Your task to perform on an android device: Go to Google Image 0: 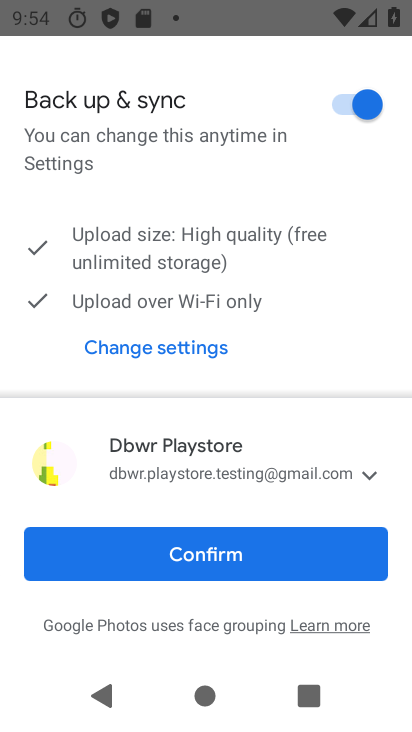
Step 0: press home button
Your task to perform on an android device: Go to Google Image 1: 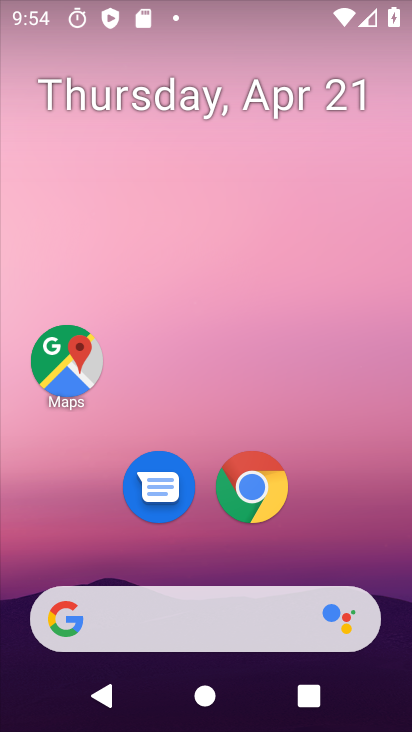
Step 1: click (359, 160)
Your task to perform on an android device: Go to Google Image 2: 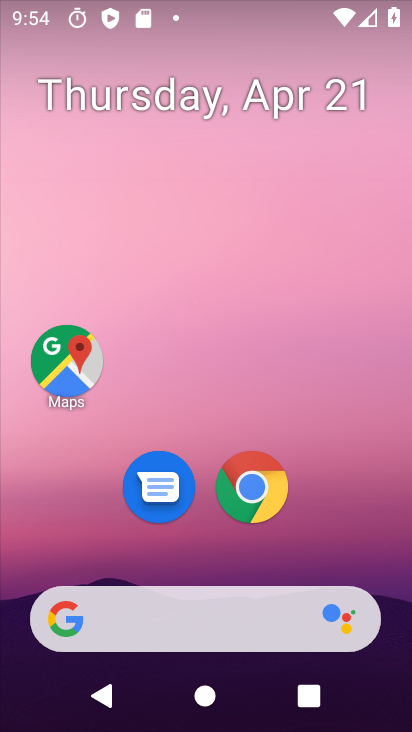
Step 2: drag from (388, 421) to (396, 304)
Your task to perform on an android device: Go to Google Image 3: 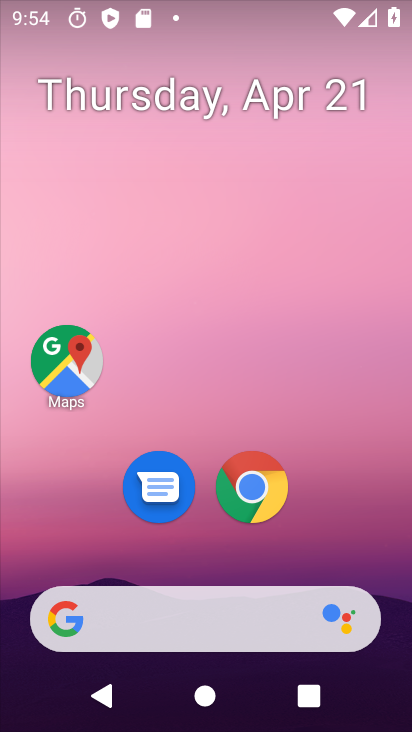
Step 3: drag from (381, 464) to (372, 240)
Your task to perform on an android device: Go to Google Image 4: 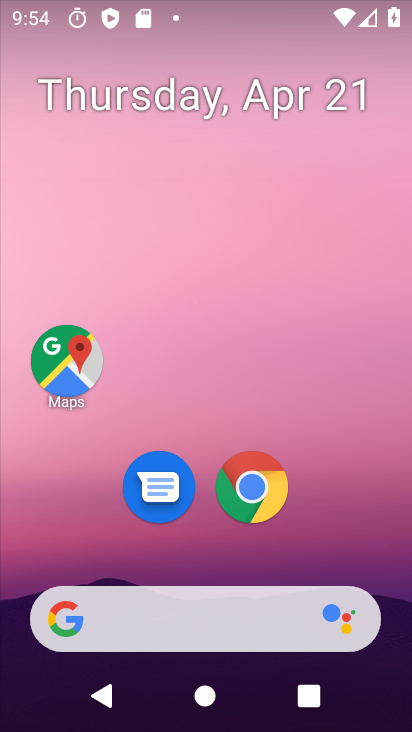
Step 4: click (377, 333)
Your task to perform on an android device: Go to Google Image 5: 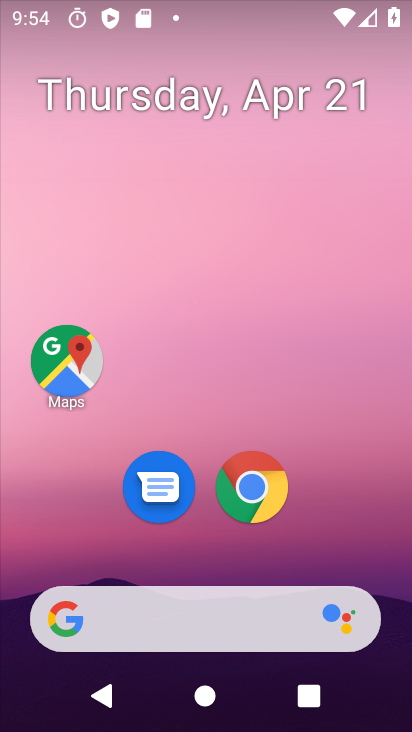
Step 5: drag from (401, 634) to (393, 251)
Your task to perform on an android device: Go to Google Image 6: 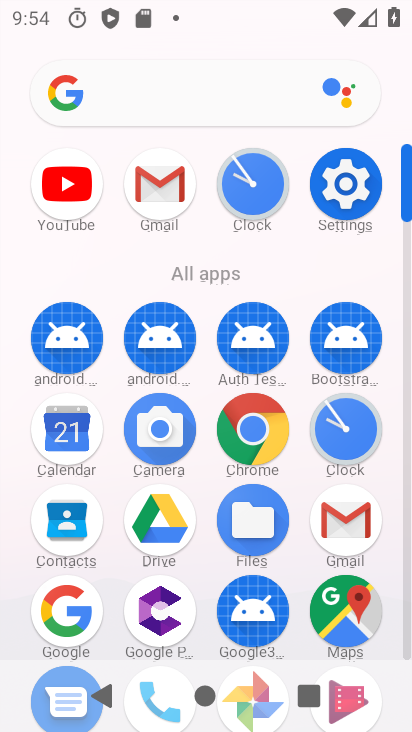
Step 6: click (73, 611)
Your task to perform on an android device: Go to Google Image 7: 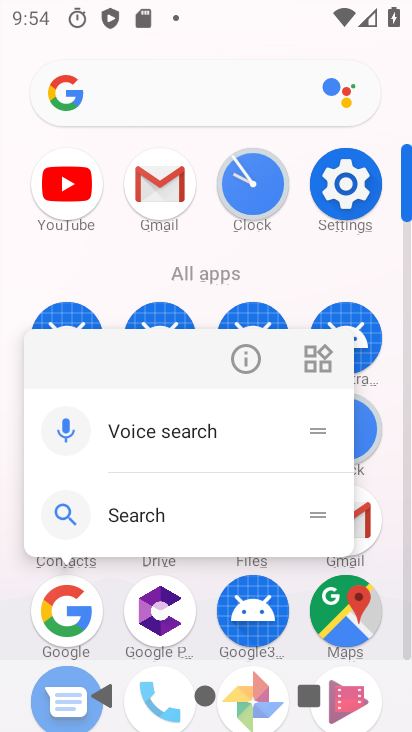
Step 7: click (70, 617)
Your task to perform on an android device: Go to Google Image 8: 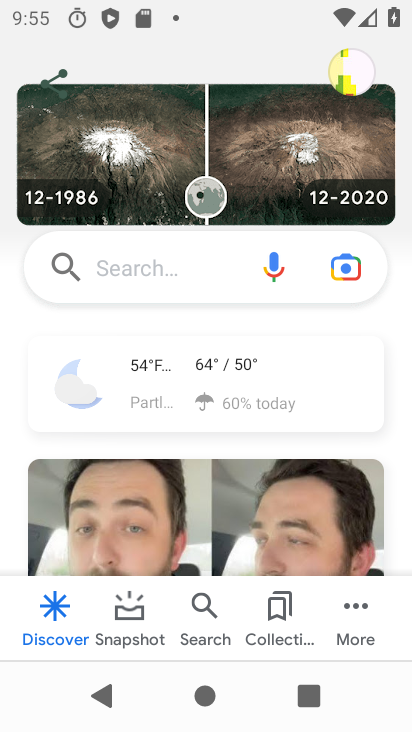
Step 8: task complete